Your task to perform on an android device: What is the speed of sound? Image 0: 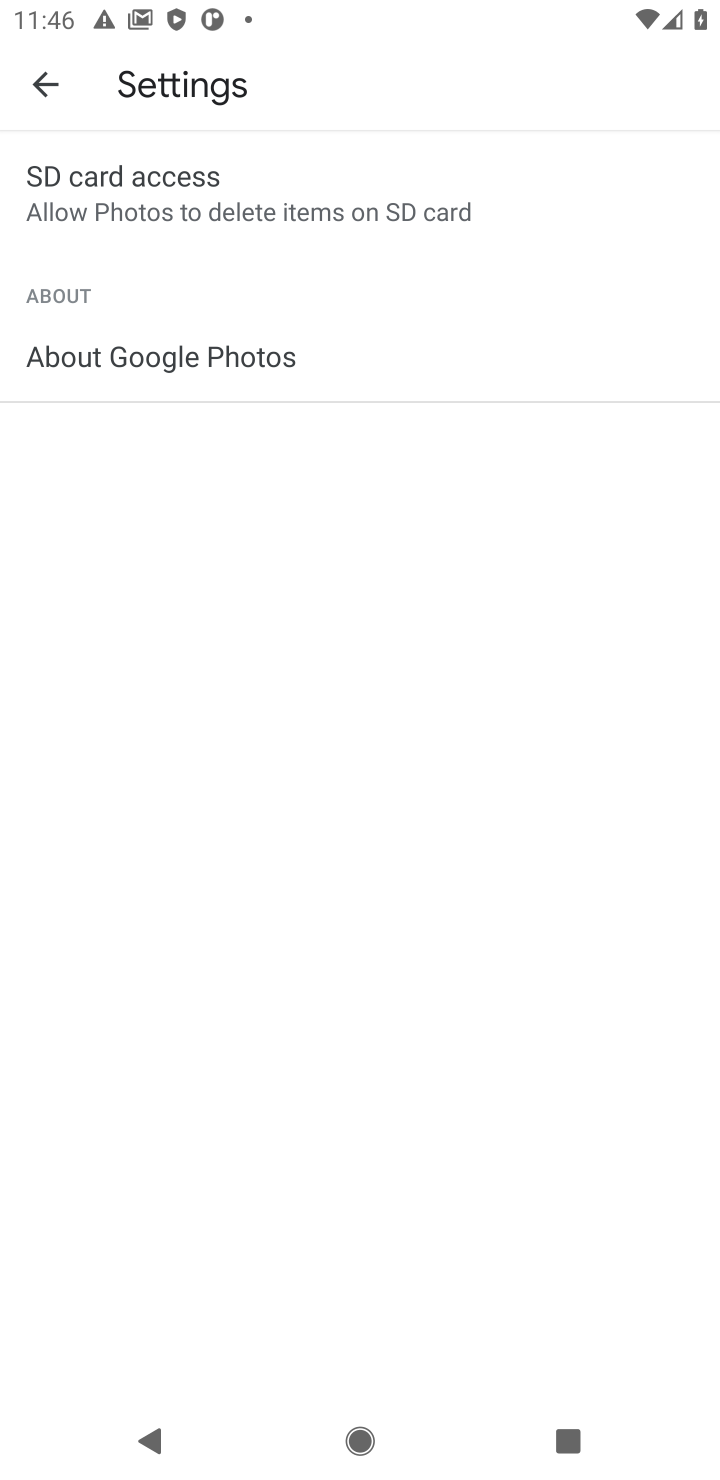
Step 0: press home button
Your task to perform on an android device: What is the speed of sound? Image 1: 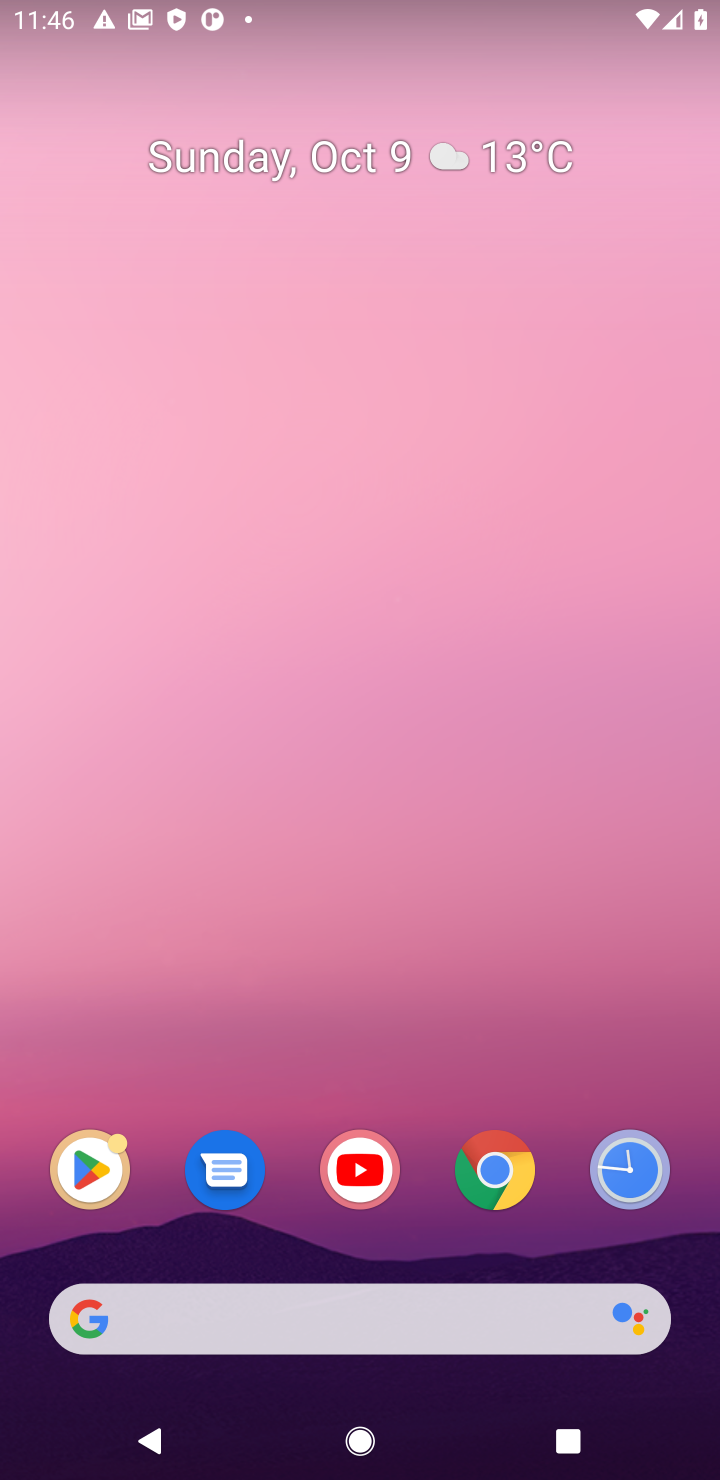
Step 1: click (497, 1170)
Your task to perform on an android device: What is the speed of sound? Image 2: 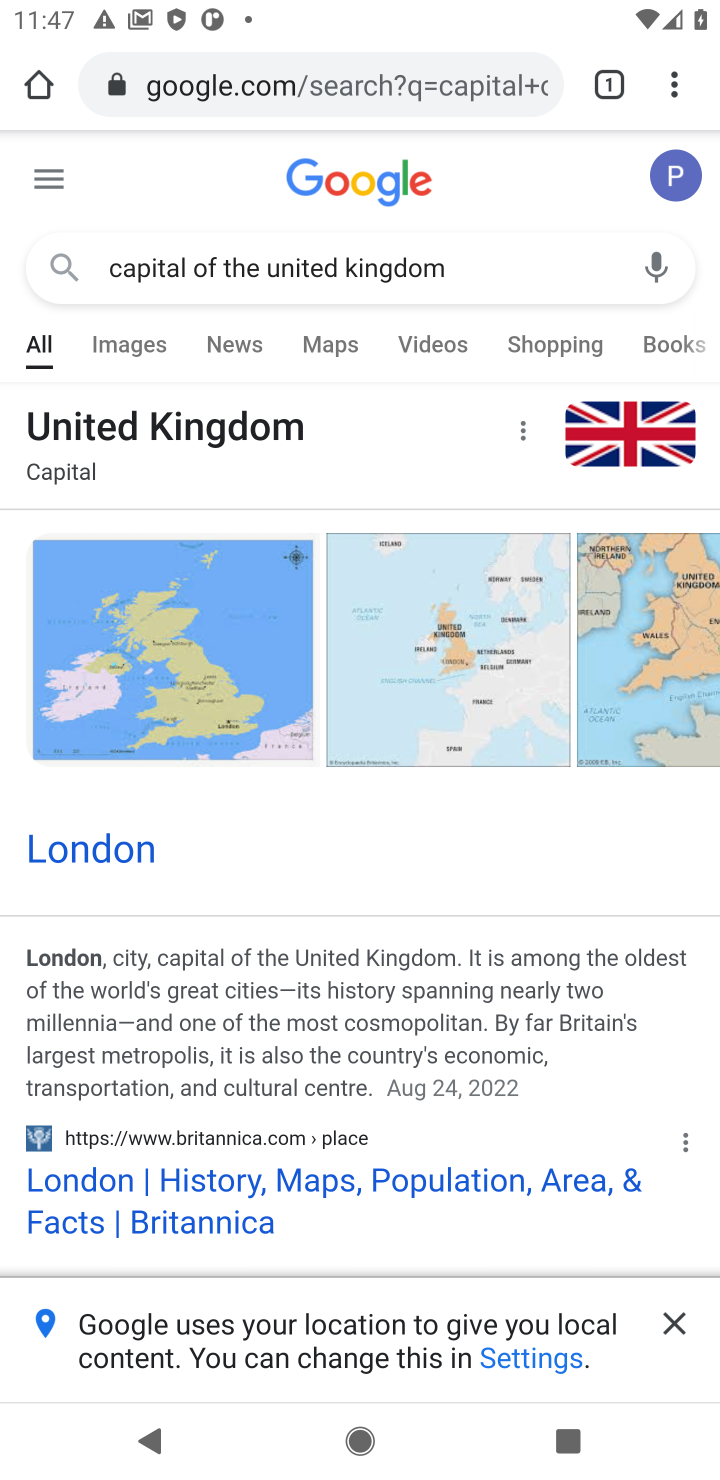
Step 2: click (328, 76)
Your task to perform on an android device: What is the speed of sound? Image 3: 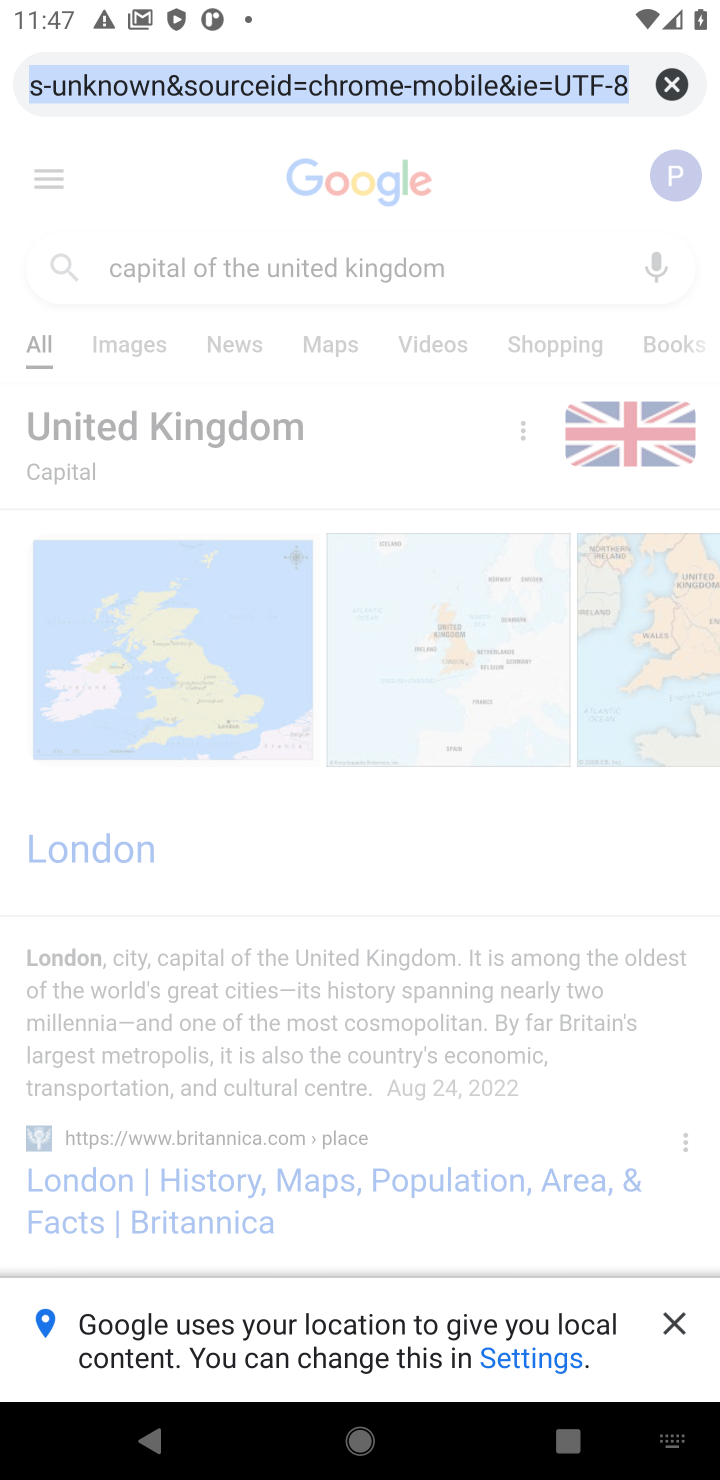
Step 3: click (666, 102)
Your task to perform on an android device: What is the speed of sound? Image 4: 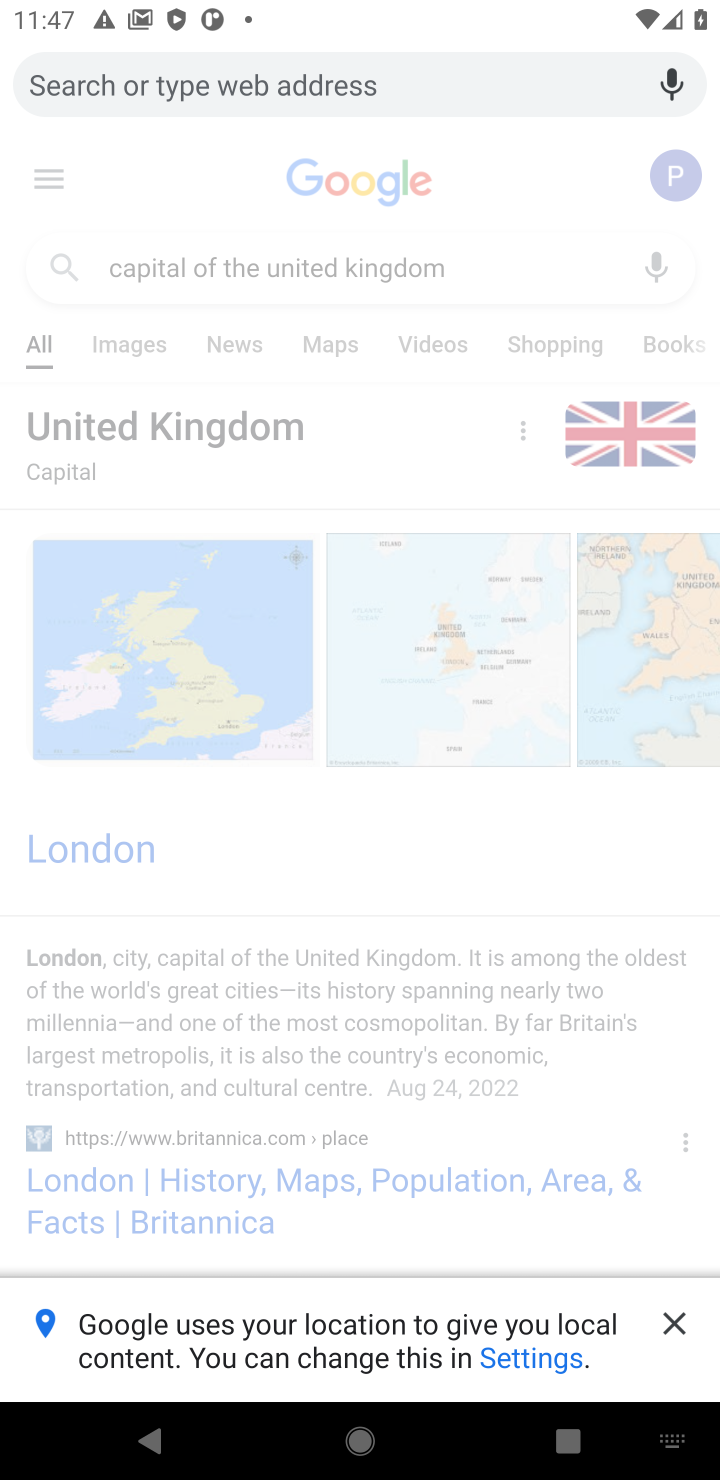
Step 4: type "What is the speed of sound?"
Your task to perform on an android device: What is the speed of sound? Image 5: 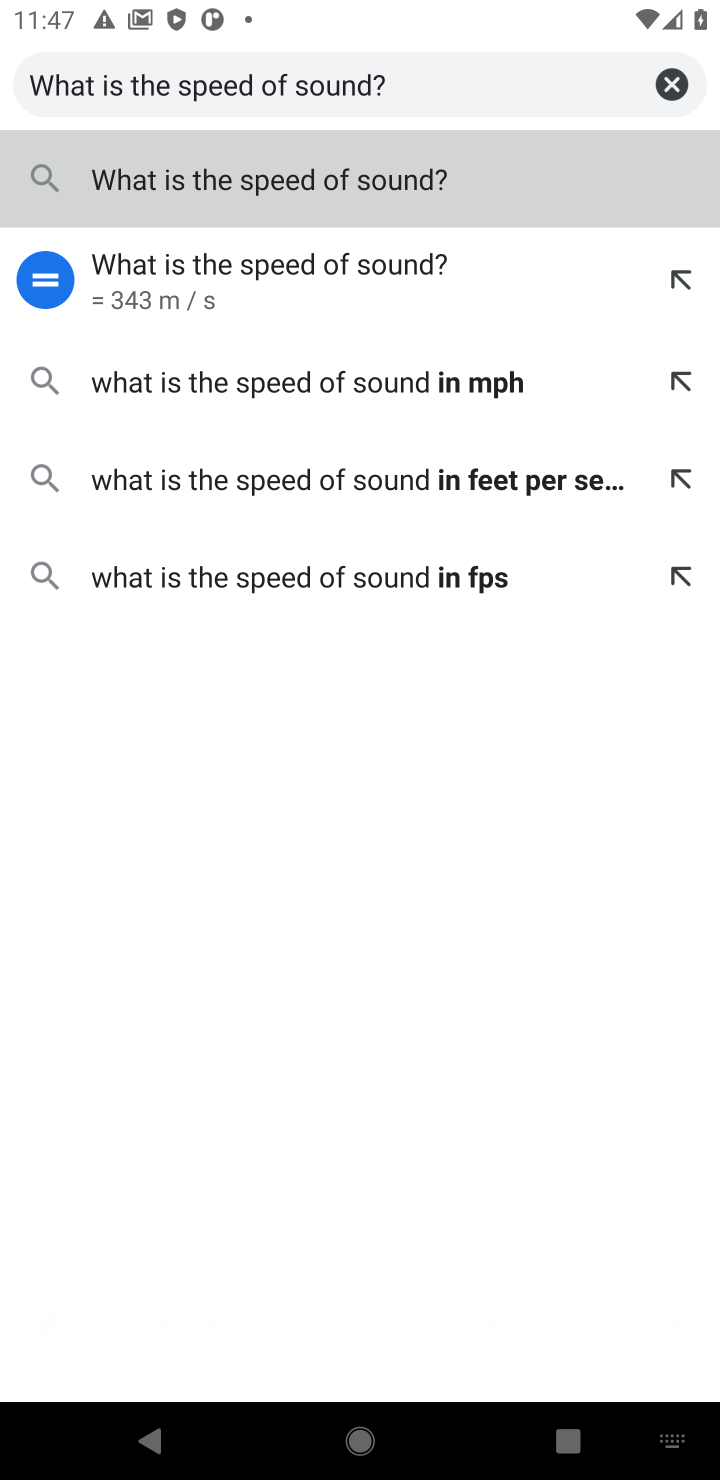
Step 5: click (409, 263)
Your task to perform on an android device: What is the speed of sound? Image 6: 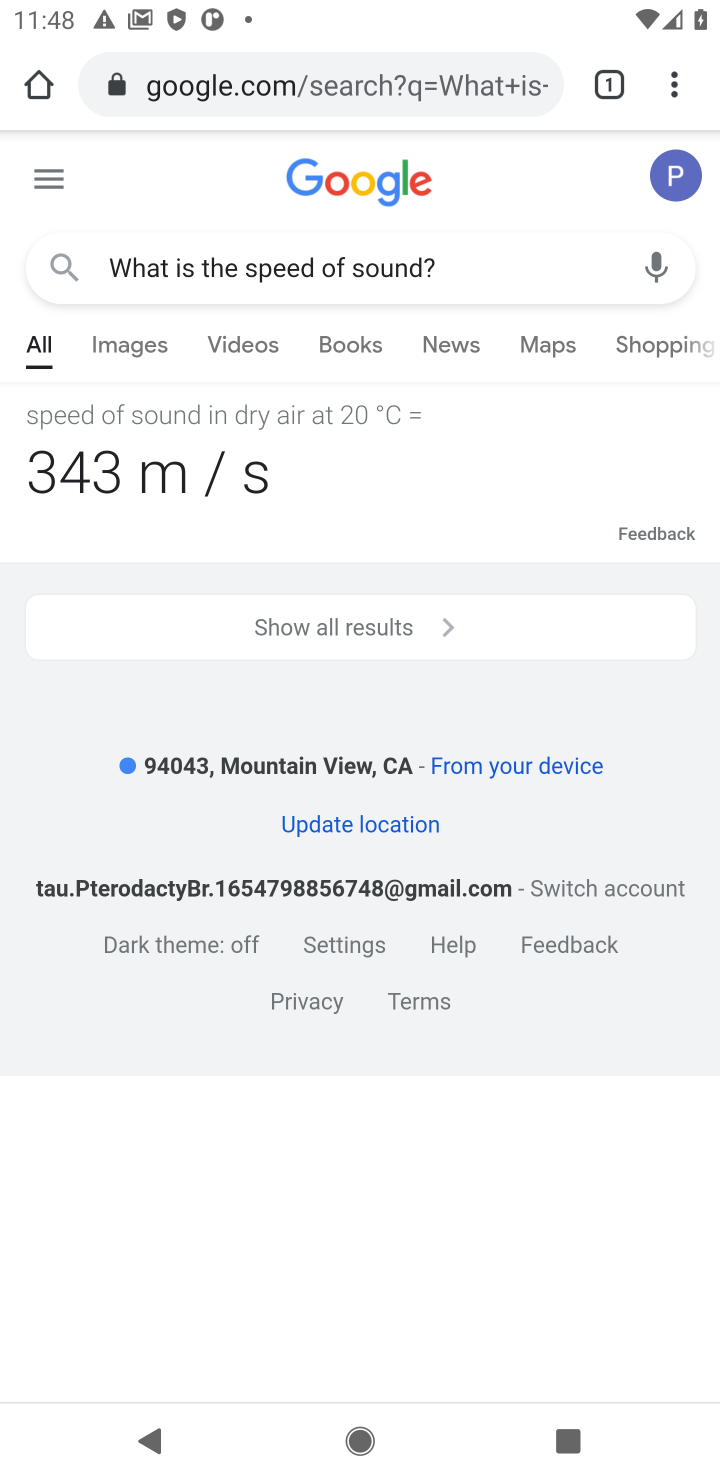
Step 6: task complete